Your task to perform on an android device: Open CNN.com Image 0: 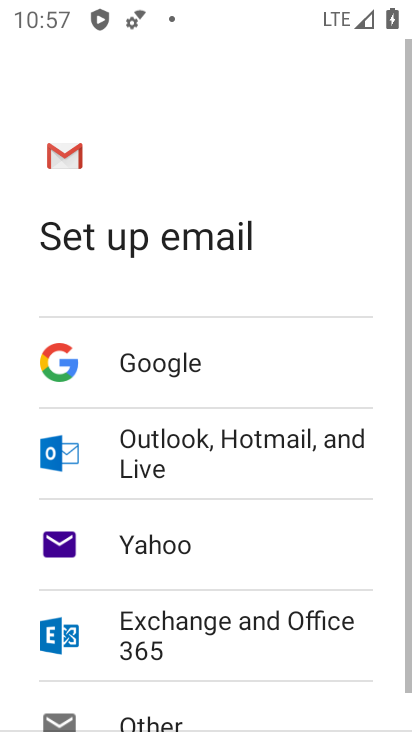
Step 0: press home button
Your task to perform on an android device: Open CNN.com Image 1: 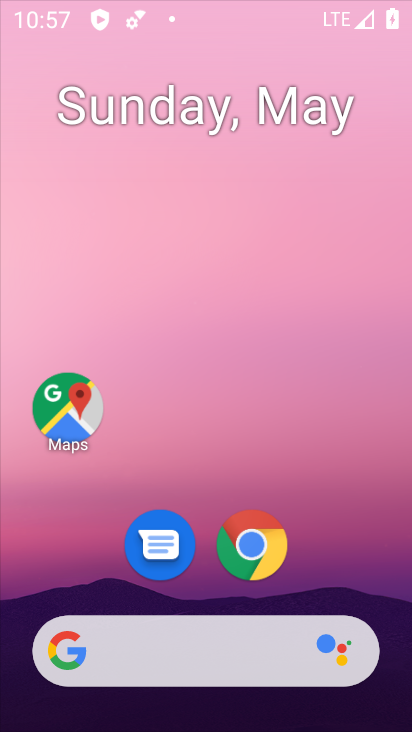
Step 1: drag from (358, 664) to (279, 57)
Your task to perform on an android device: Open CNN.com Image 2: 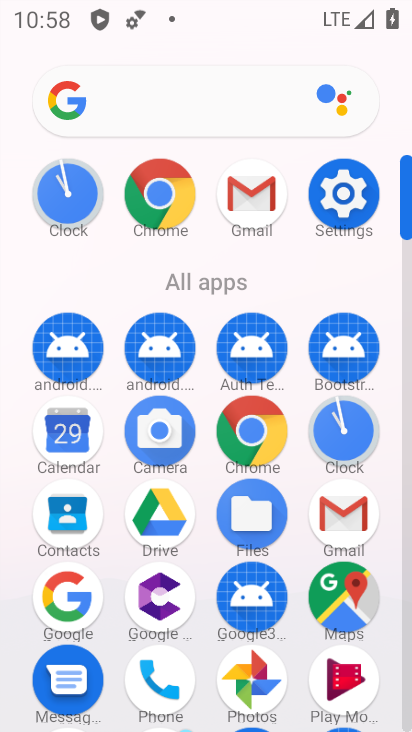
Step 2: click (82, 597)
Your task to perform on an android device: Open CNN.com Image 3: 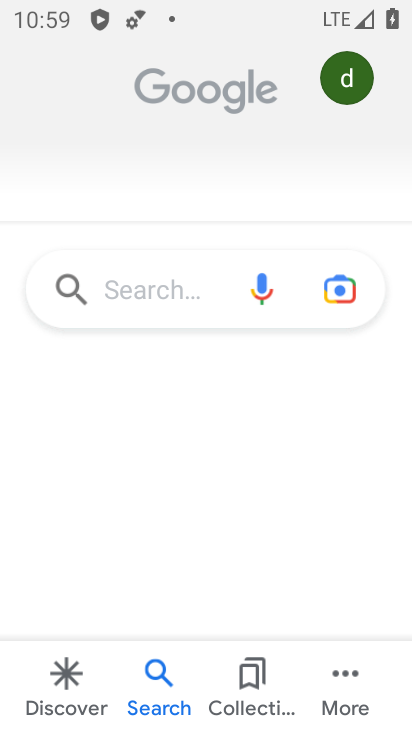
Step 3: click (180, 296)
Your task to perform on an android device: Open CNN.com Image 4: 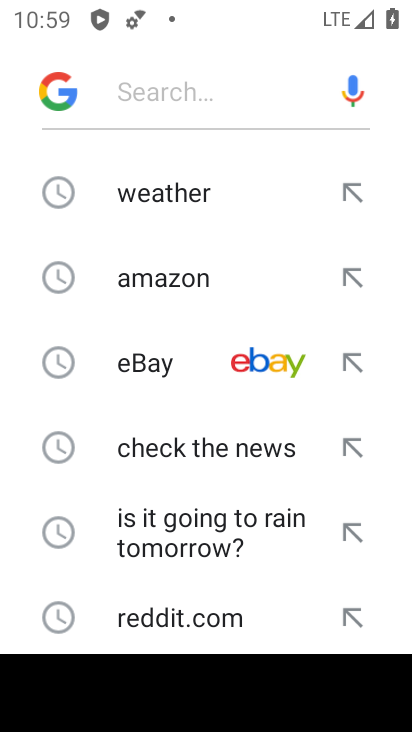
Step 4: drag from (150, 607) to (233, 71)
Your task to perform on an android device: Open CNN.com Image 5: 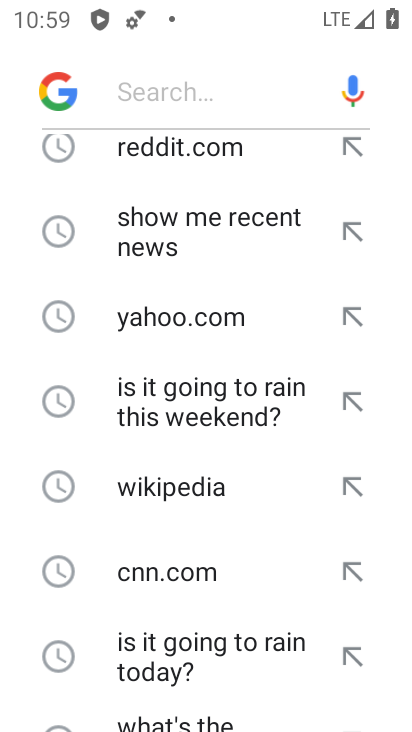
Step 5: click (129, 592)
Your task to perform on an android device: Open CNN.com Image 6: 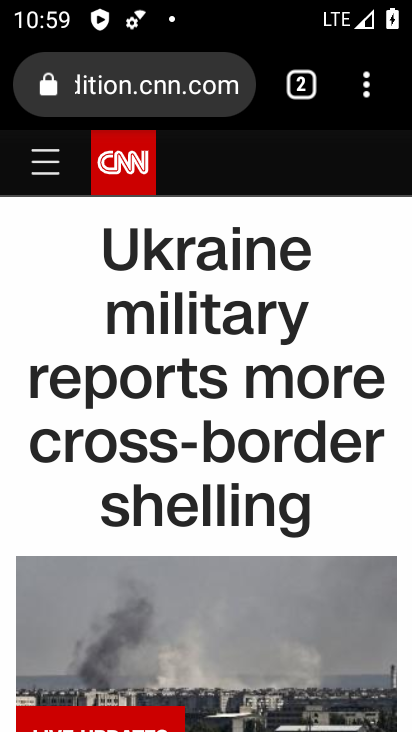
Step 6: task complete